Your task to perform on an android device: Go to calendar. Show me events next week Image 0: 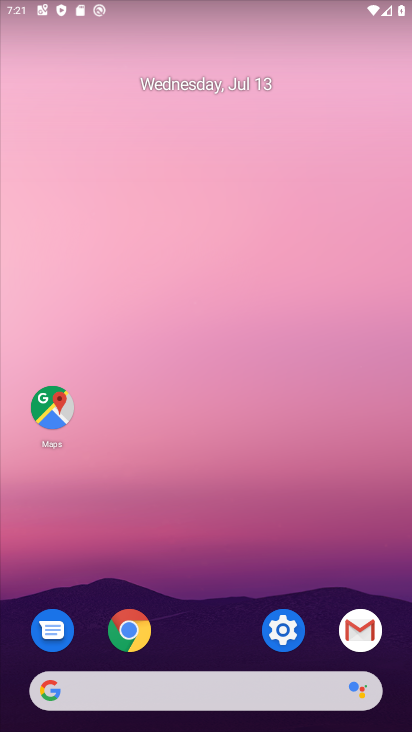
Step 0: press home button
Your task to perform on an android device: Go to calendar. Show me events next week Image 1: 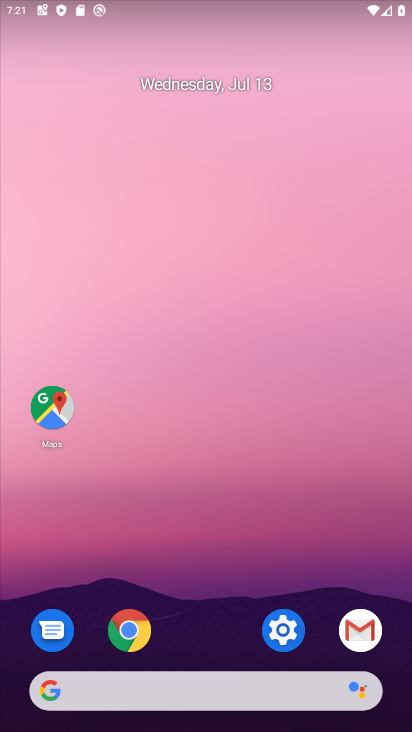
Step 1: drag from (250, 714) to (229, 184)
Your task to perform on an android device: Go to calendar. Show me events next week Image 2: 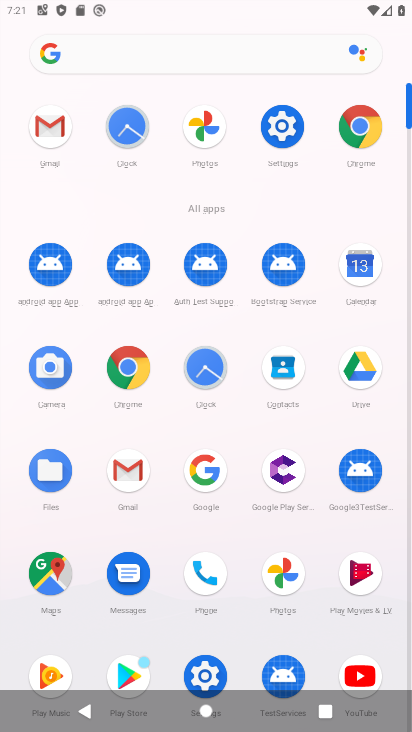
Step 2: click (344, 266)
Your task to perform on an android device: Go to calendar. Show me events next week Image 3: 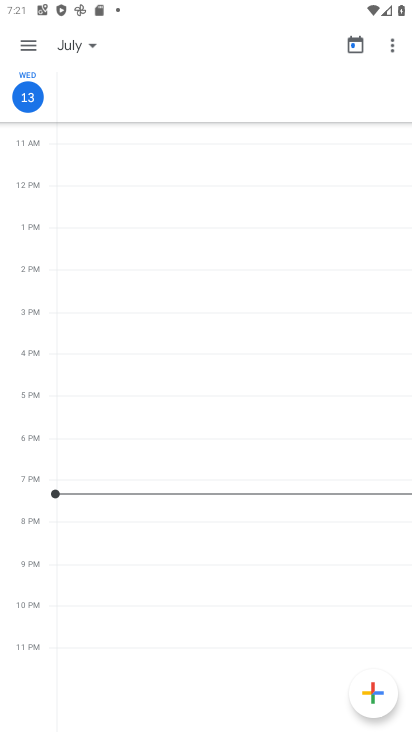
Step 3: click (34, 46)
Your task to perform on an android device: Go to calendar. Show me events next week Image 4: 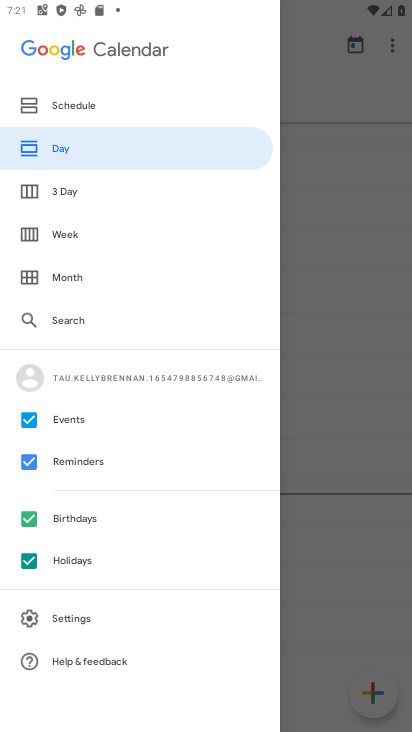
Step 4: click (65, 285)
Your task to perform on an android device: Go to calendar. Show me events next week Image 5: 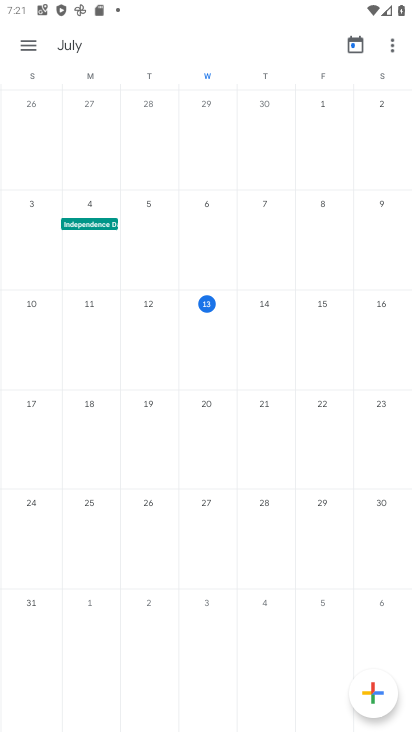
Step 5: click (96, 440)
Your task to perform on an android device: Go to calendar. Show me events next week Image 6: 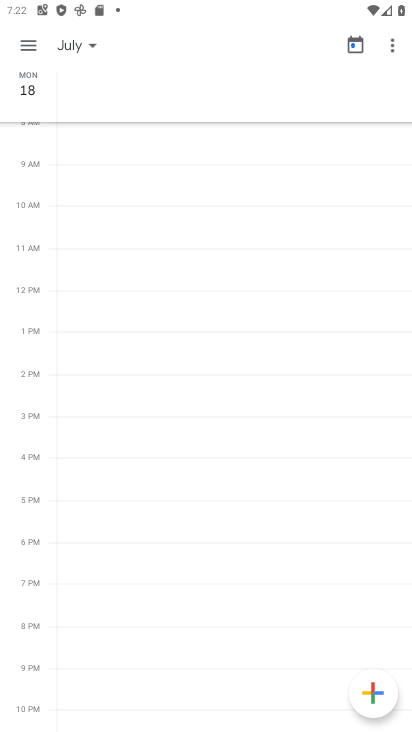
Step 6: task complete